Your task to perform on an android device: Go to calendar. Show me events next week Image 0: 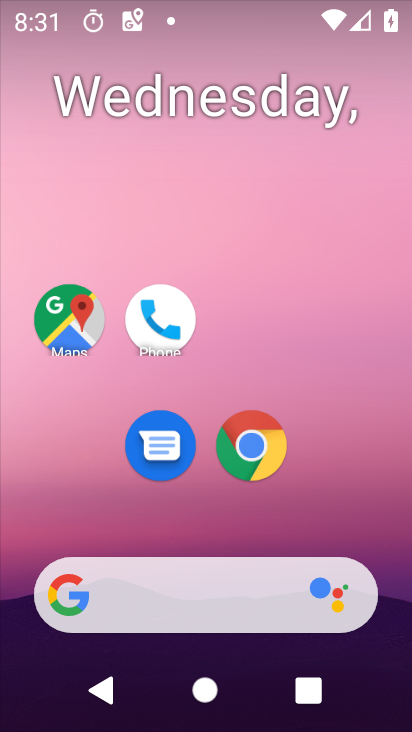
Step 0: click (269, 467)
Your task to perform on an android device: Go to calendar. Show me events next week Image 1: 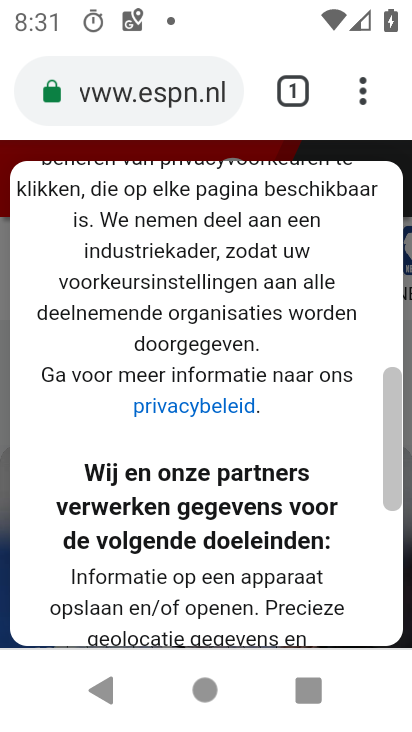
Step 1: press home button
Your task to perform on an android device: Go to calendar. Show me events next week Image 2: 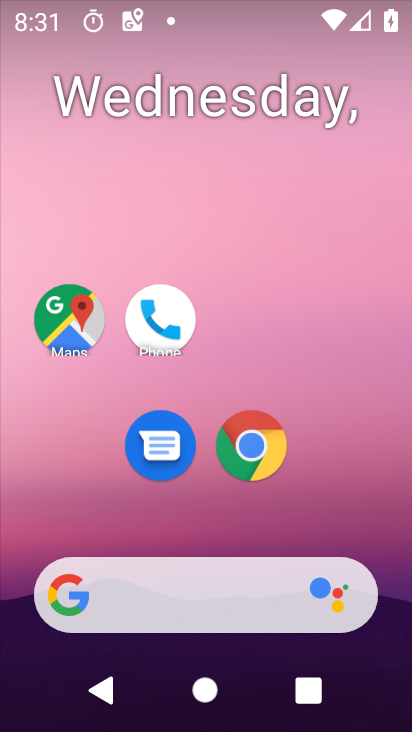
Step 2: drag from (295, 271) to (319, 82)
Your task to perform on an android device: Go to calendar. Show me events next week Image 3: 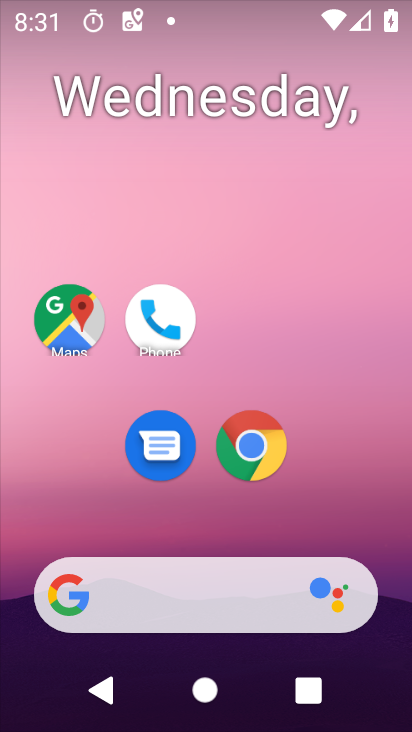
Step 3: drag from (310, 479) to (299, 30)
Your task to perform on an android device: Go to calendar. Show me events next week Image 4: 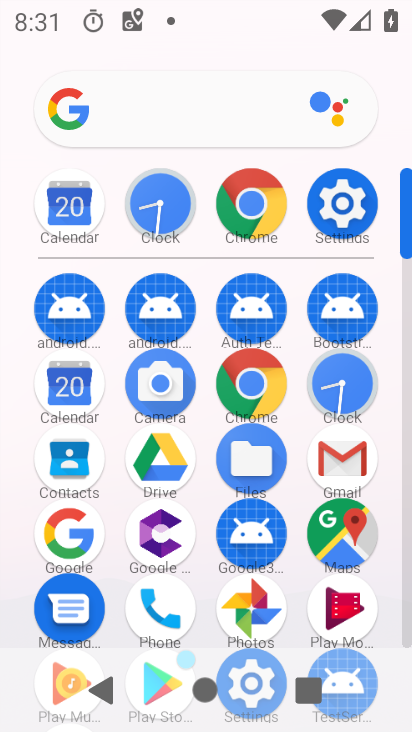
Step 4: click (72, 396)
Your task to perform on an android device: Go to calendar. Show me events next week Image 5: 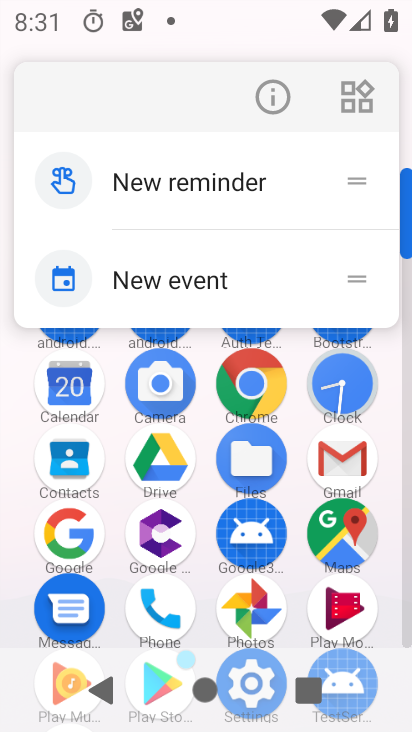
Step 5: click (72, 396)
Your task to perform on an android device: Go to calendar. Show me events next week Image 6: 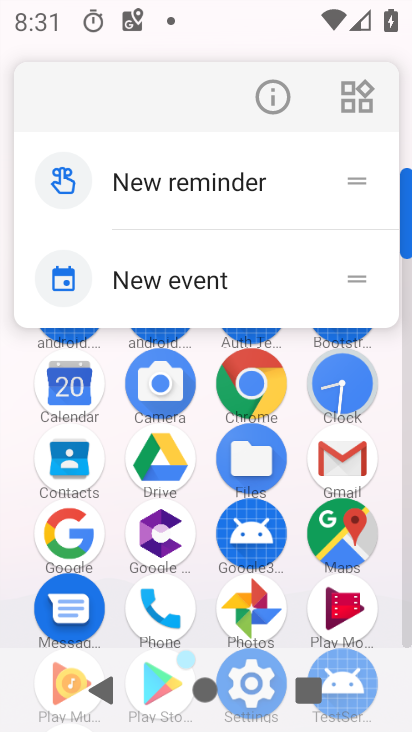
Step 6: click (76, 405)
Your task to perform on an android device: Go to calendar. Show me events next week Image 7: 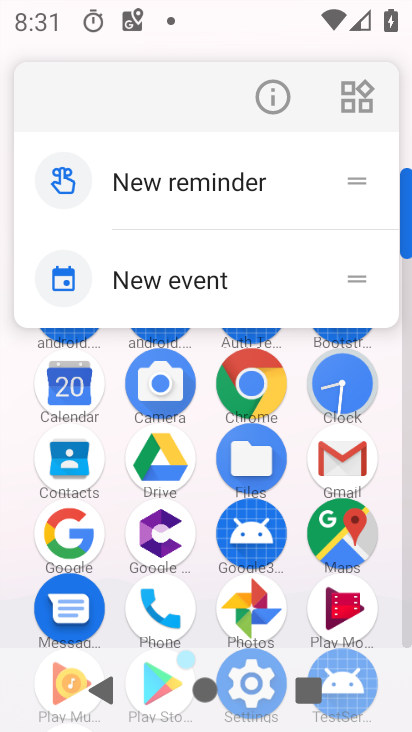
Step 7: click (74, 409)
Your task to perform on an android device: Go to calendar. Show me events next week Image 8: 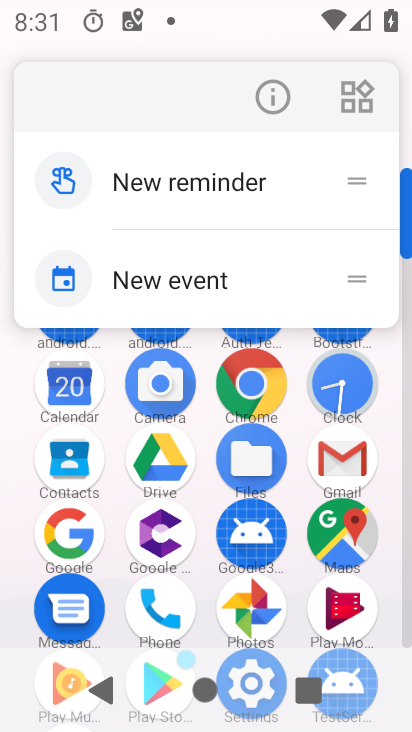
Step 8: click (68, 400)
Your task to perform on an android device: Go to calendar. Show me events next week Image 9: 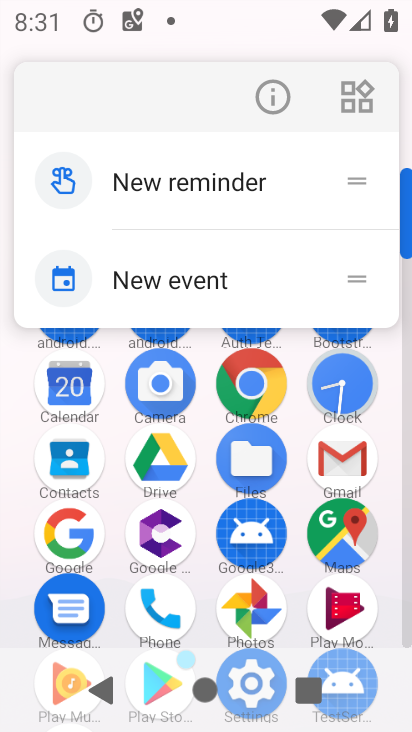
Step 9: click (69, 382)
Your task to perform on an android device: Go to calendar. Show me events next week Image 10: 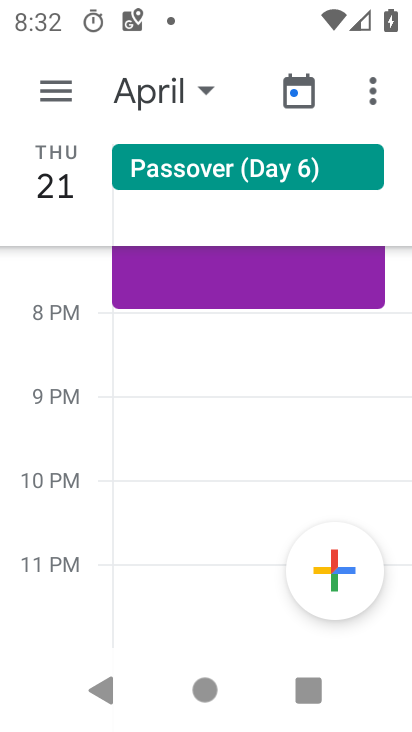
Step 10: drag from (202, 543) to (220, 227)
Your task to perform on an android device: Go to calendar. Show me events next week Image 11: 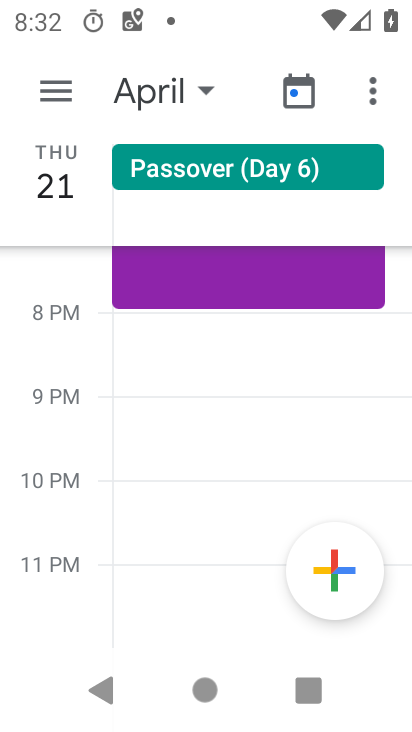
Step 11: drag from (226, 569) to (254, 161)
Your task to perform on an android device: Go to calendar. Show me events next week Image 12: 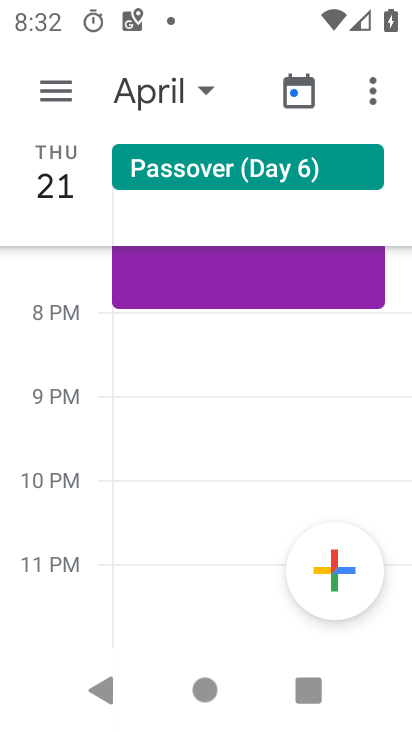
Step 12: click (60, 96)
Your task to perform on an android device: Go to calendar. Show me events next week Image 13: 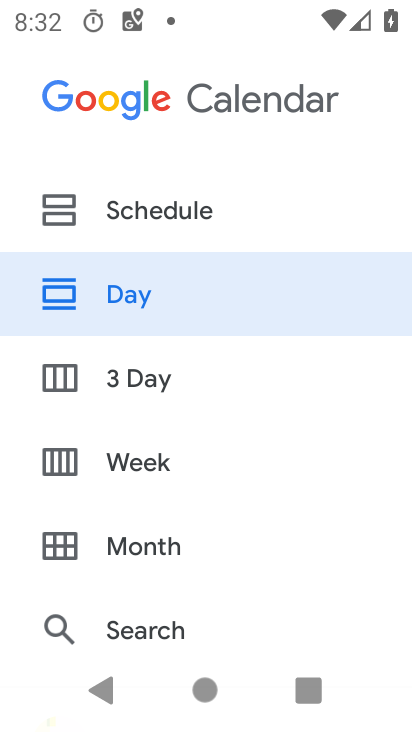
Step 13: drag from (208, 570) to (223, 274)
Your task to perform on an android device: Go to calendar. Show me events next week Image 14: 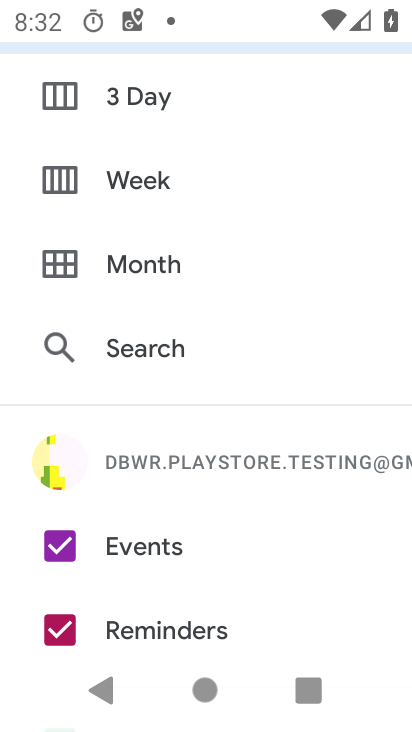
Step 14: drag from (213, 572) to (290, 163)
Your task to perform on an android device: Go to calendar. Show me events next week Image 15: 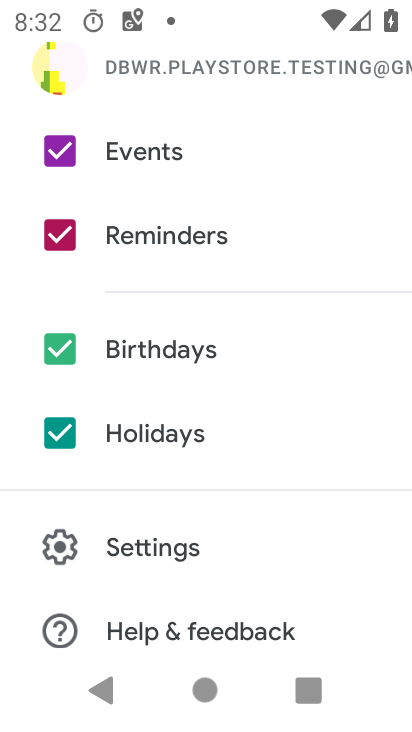
Step 15: drag from (285, 170) to (293, 680)
Your task to perform on an android device: Go to calendar. Show me events next week Image 16: 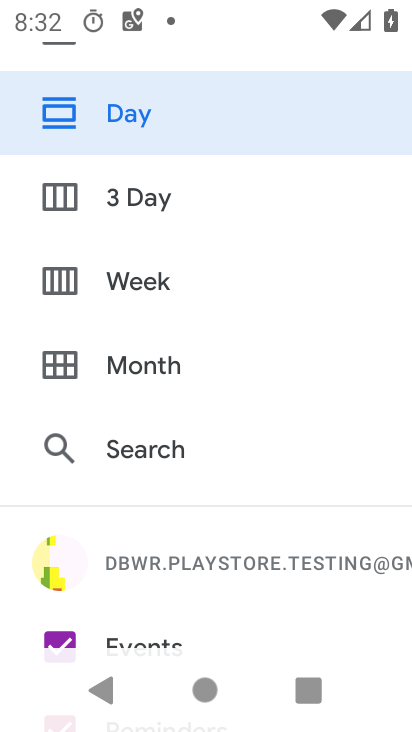
Step 16: drag from (241, 334) to (232, 634)
Your task to perform on an android device: Go to calendar. Show me events next week Image 17: 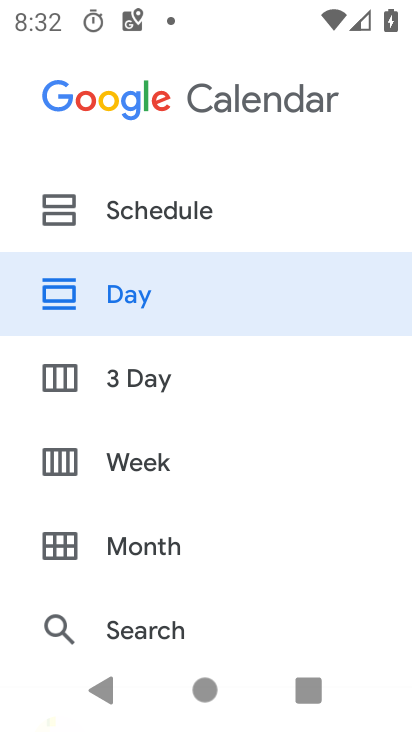
Step 17: click (75, 192)
Your task to perform on an android device: Go to calendar. Show me events next week Image 18: 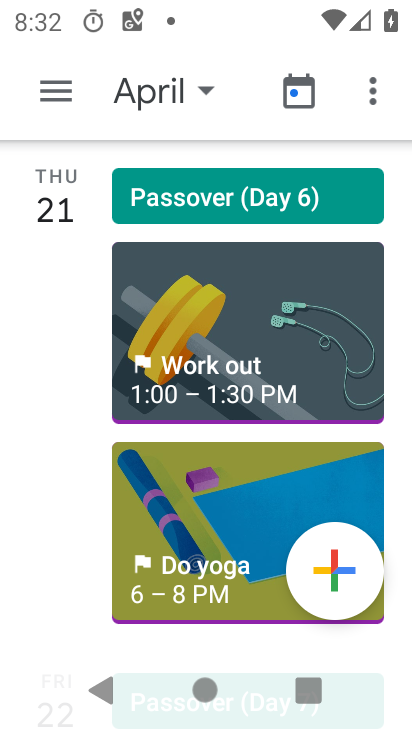
Step 18: task complete